Your task to perform on an android device: toggle data saver in the chrome app Image 0: 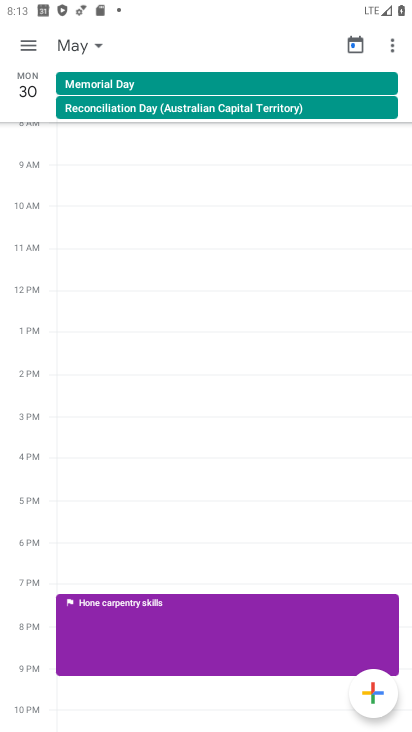
Step 0: press home button
Your task to perform on an android device: toggle data saver in the chrome app Image 1: 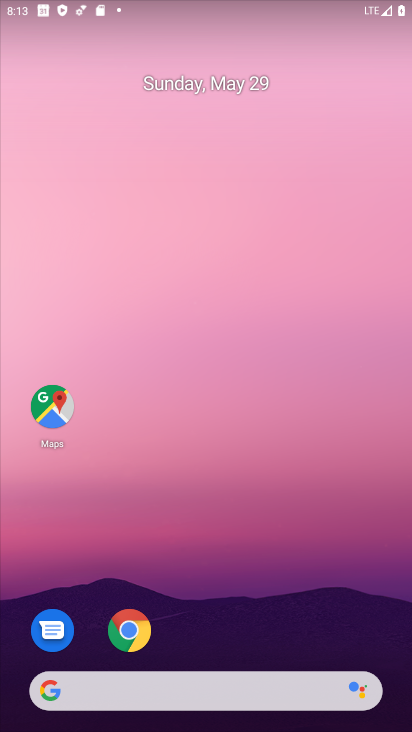
Step 1: click (135, 631)
Your task to perform on an android device: toggle data saver in the chrome app Image 2: 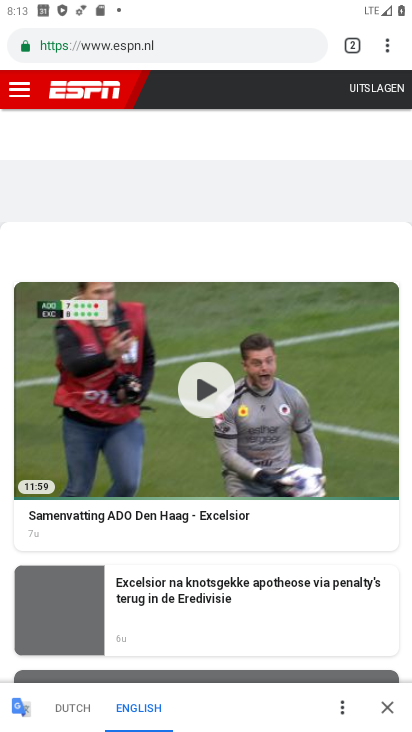
Step 2: click (386, 44)
Your task to perform on an android device: toggle data saver in the chrome app Image 3: 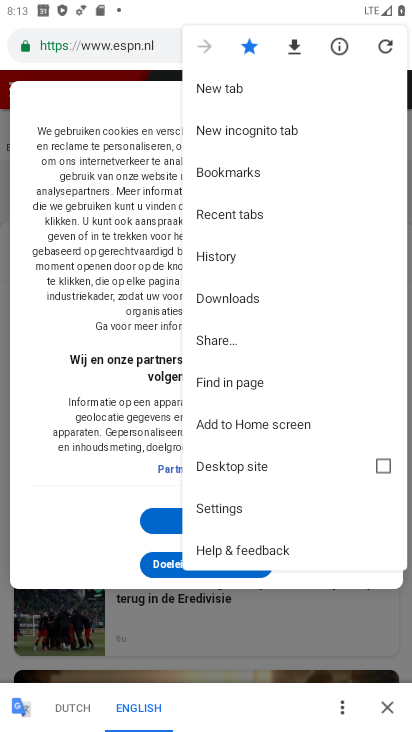
Step 3: click (204, 497)
Your task to perform on an android device: toggle data saver in the chrome app Image 4: 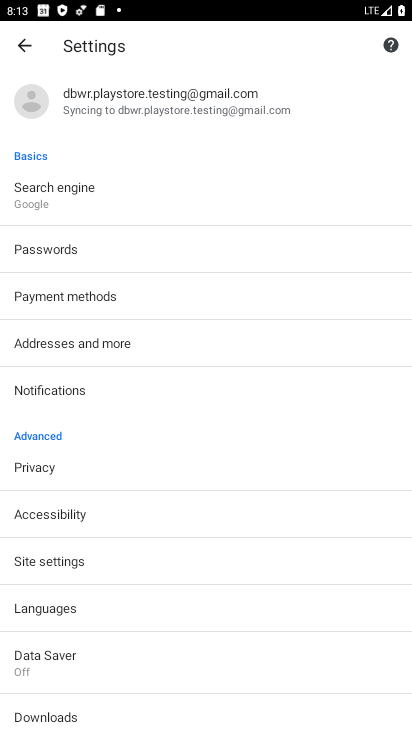
Step 4: click (65, 649)
Your task to perform on an android device: toggle data saver in the chrome app Image 5: 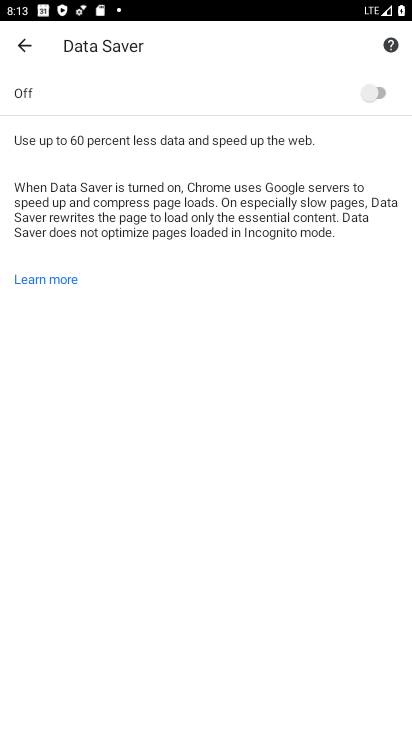
Step 5: click (376, 82)
Your task to perform on an android device: toggle data saver in the chrome app Image 6: 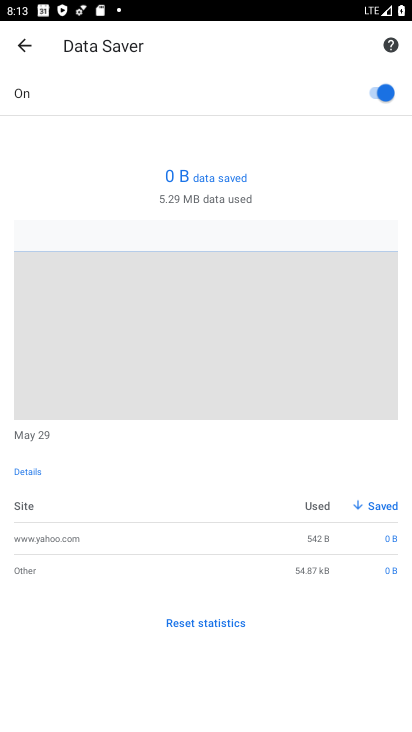
Step 6: task complete